Your task to perform on an android device: check battery use Image 0: 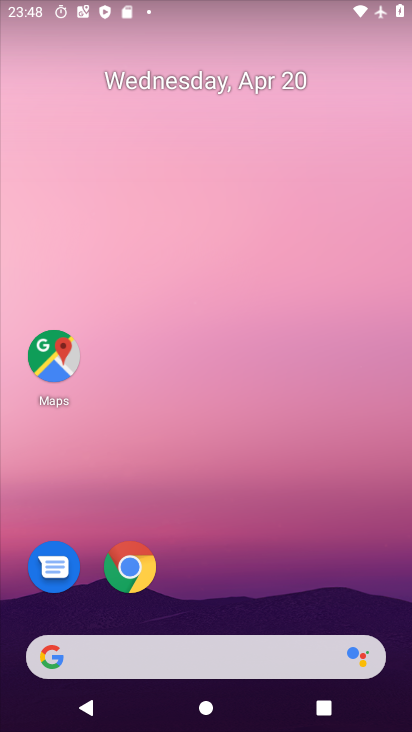
Step 0: drag from (267, 367) to (264, 117)
Your task to perform on an android device: check battery use Image 1: 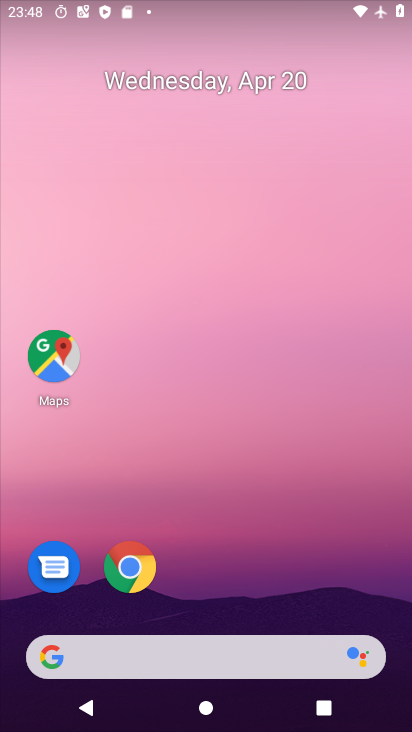
Step 1: drag from (291, 375) to (304, 167)
Your task to perform on an android device: check battery use Image 2: 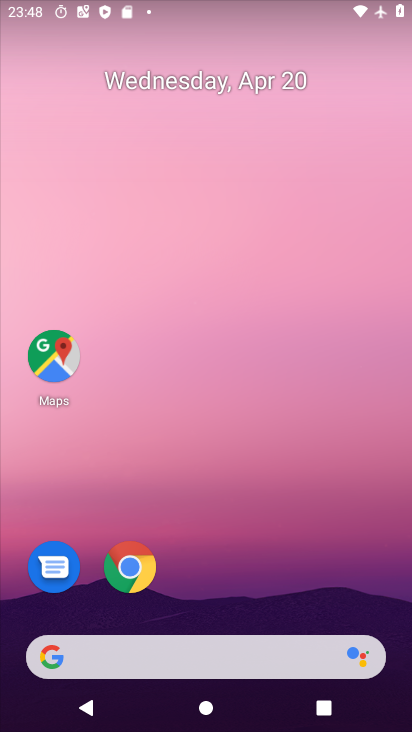
Step 2: drag from (265, 487) to (300, 159)
Your task to perform on an android device: check battery use Image 3: 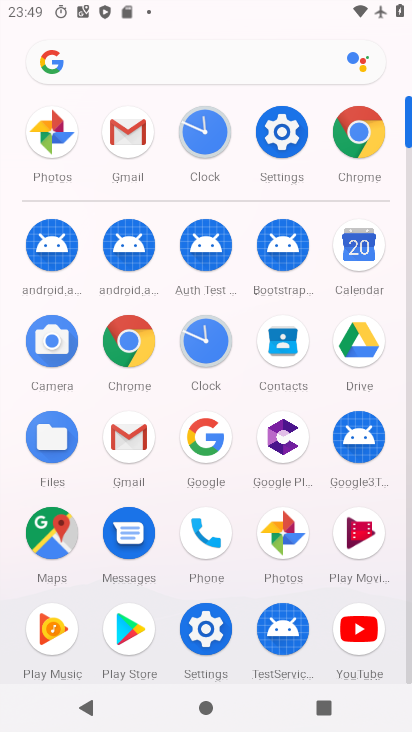
Step 3: click (283, 136)
Your task to perform on an android device: check battery use Image 4: 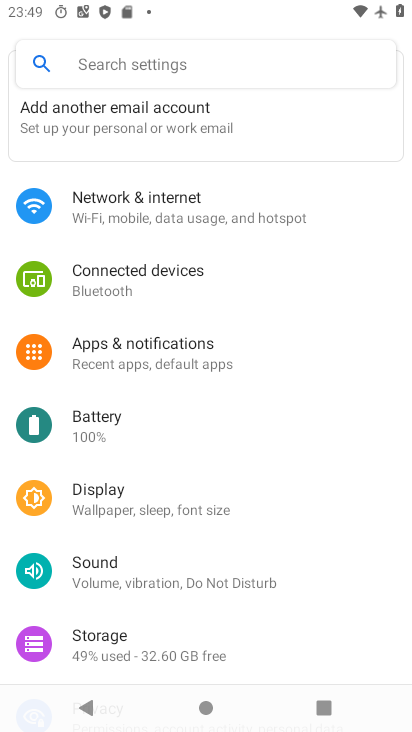
Step 4: click (106, 418)
Your task to perform on an android device: check battery use Image 5: 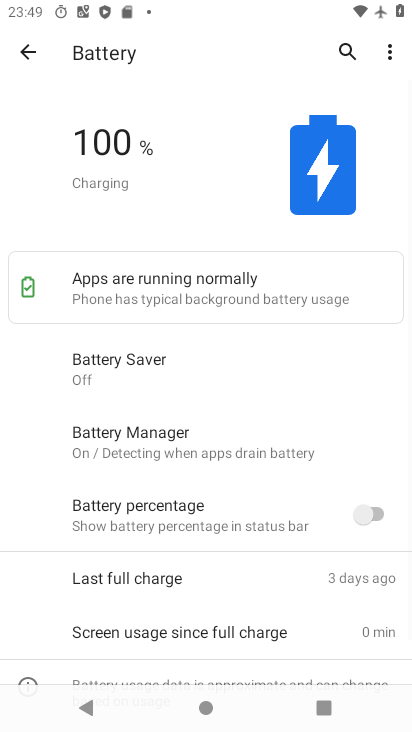
Step 5: drag from (157, 566) to (244, 176)
Your task to perform on an android device: check battery use Image 6: 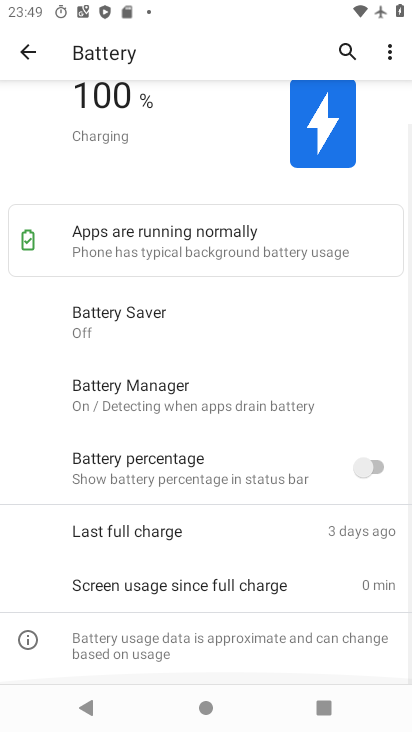
Step 6: drag from (229, 159) to (159, 588)
Your task to perform on an android device: check battery use Image 7: 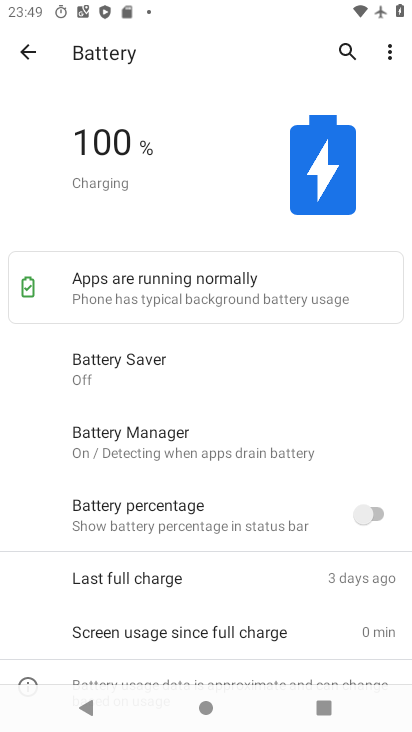
Step 7: drag from (207, 469) to (275, 170)
Your task to perform on an android device: check battery use Image 8: 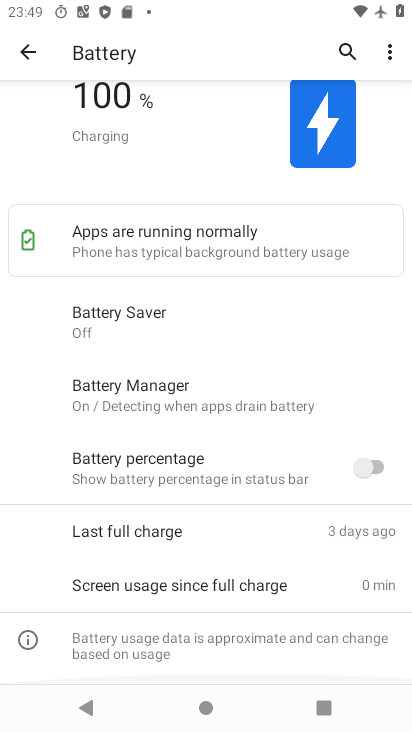
Step 8: drag from (244, 149) to (185, 613)
Your task to perform on an android device: check battery use Image 9: 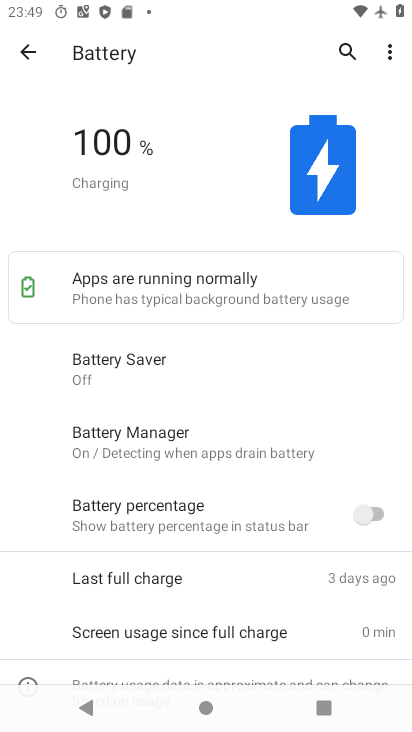
Step 9: drag from (228, 610) to (246, 168)
Your task to perform on an android device: check battery use Image 10: 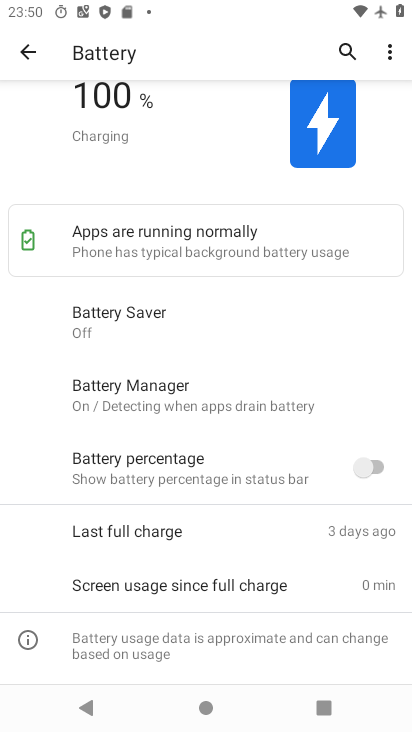
Step 10: click (201, 207)
Your task to perform on an android device: check battery use Image 11: 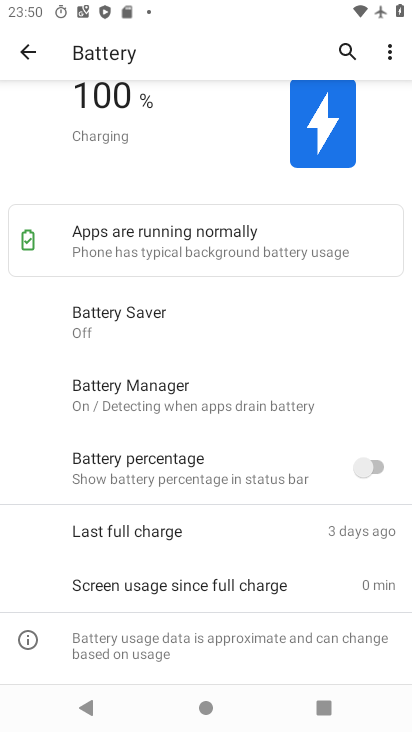
Step 11: task complete